Your task to perform on an android device: turn off airplane mode Image 0: 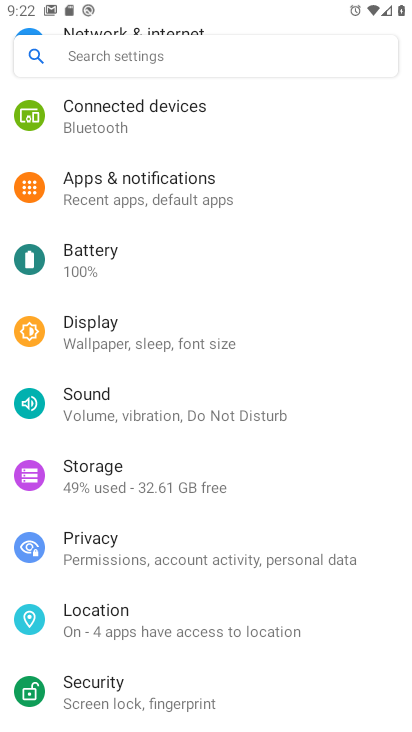
Step 0: drag from (174, 317) to (187, 641)
Your task to perform on an android device: turn off airplane mode Image 1: 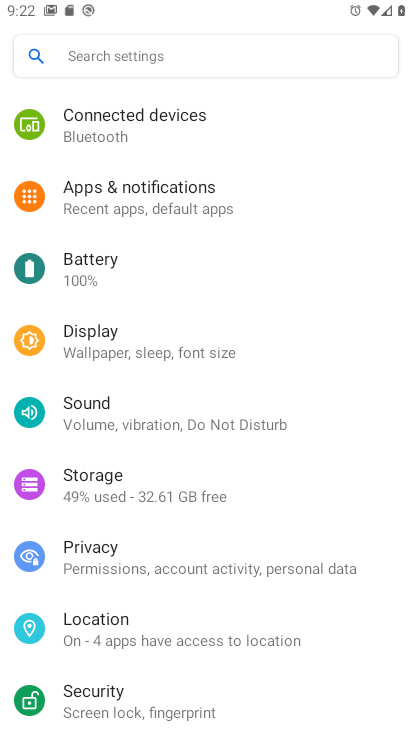
Step 1: drag from (227, 248) to (278, 659)
Your task to perform on an android device: turn off airplane mode Image 2: 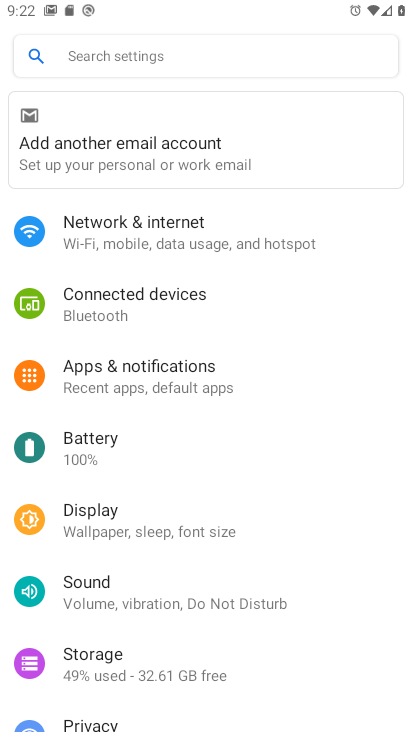
Step 2: drag from (205, 280) to (216, 683)
Your task to perform on an android device: turn off airplane mode Image 3: 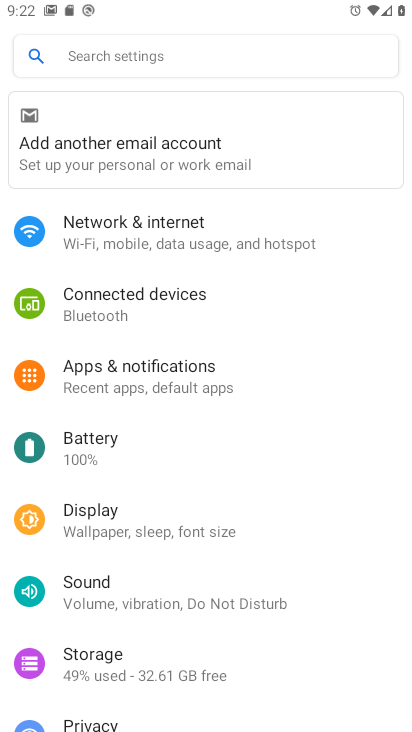
Step 3: click (158, 220)
Your task to perform on an android device: turn off airplane mode Image 4: 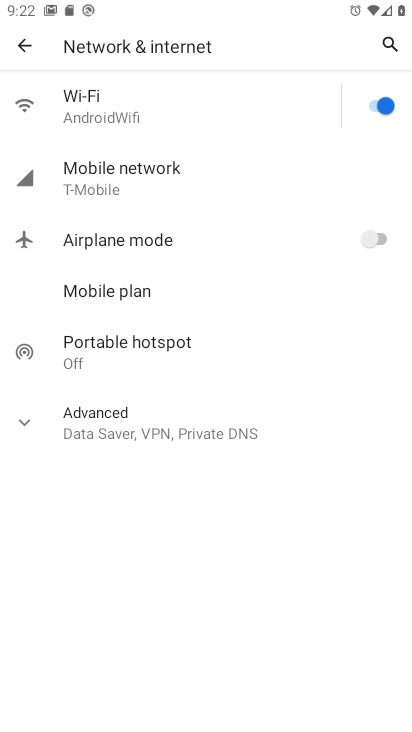
Step 4: task complete